Your task to perform on an android device: open app "Gmail" (install if not already installed) Image 0: 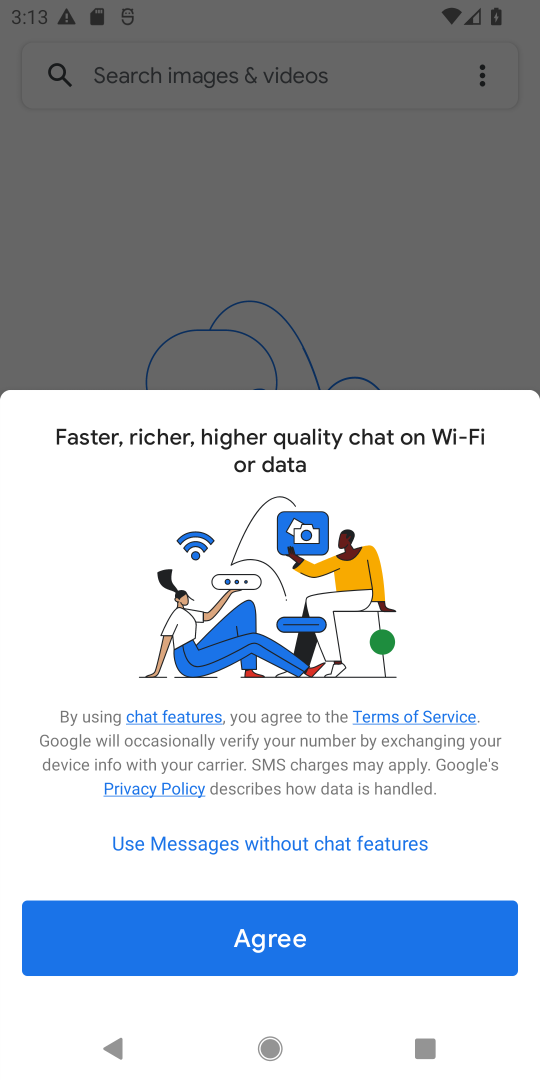
Step 0: press back button
Your task to perform on an android device: open app "Gmail" (install if not already installed) Image 1: 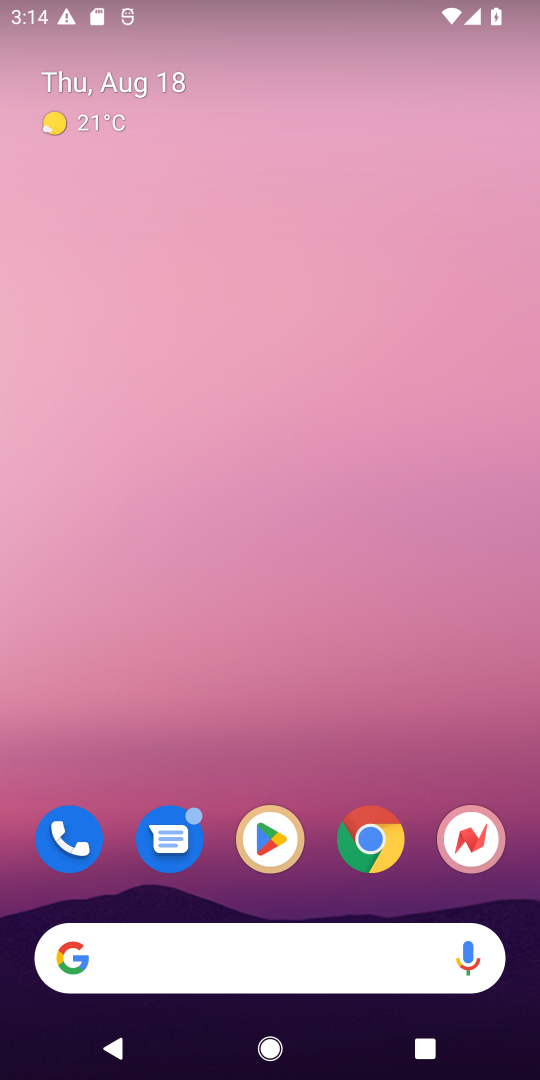
Step 1: drag from (267, 900) to (447, 538)
Your task to perform on an android device: open app "Gmail" (install if not already installed) Image 2: 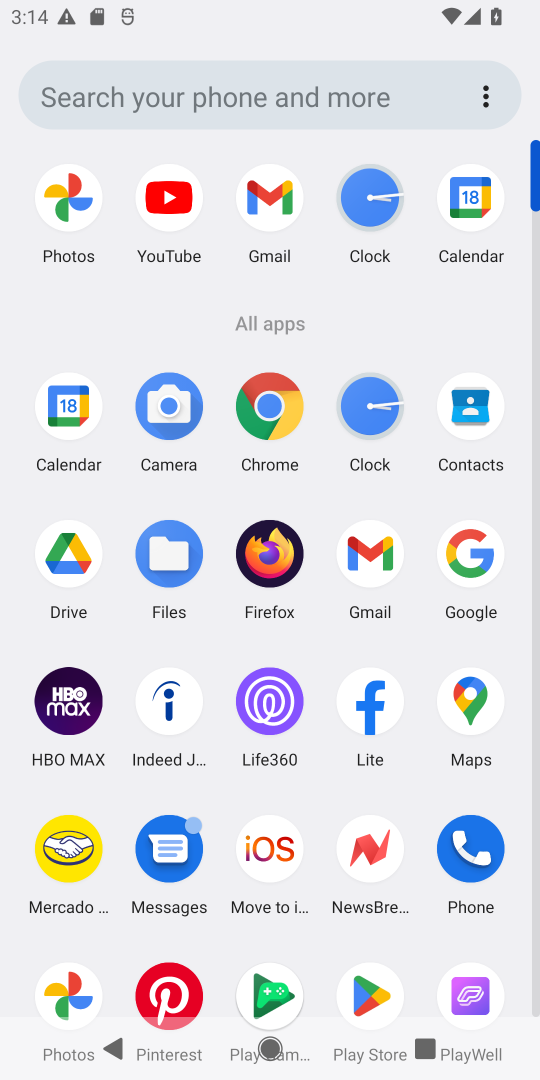
Step 2: click (376, 565)
Your task to perform on an android device: open app "Gmail" (install if not already installed) Image 3: 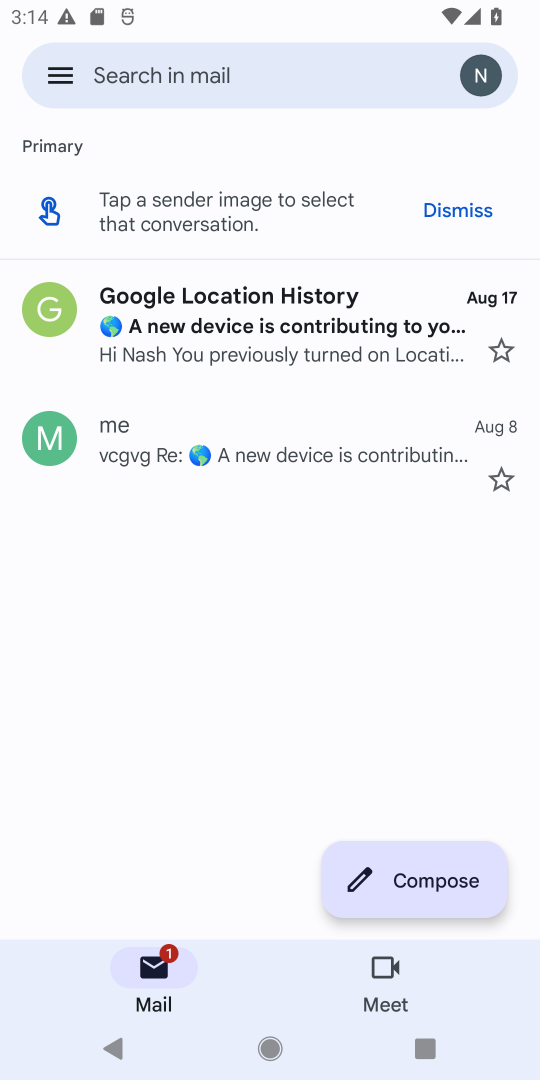
Step 3: task complete